Your task to perform on an android device: refresh tabs in the chrome app Image 0: 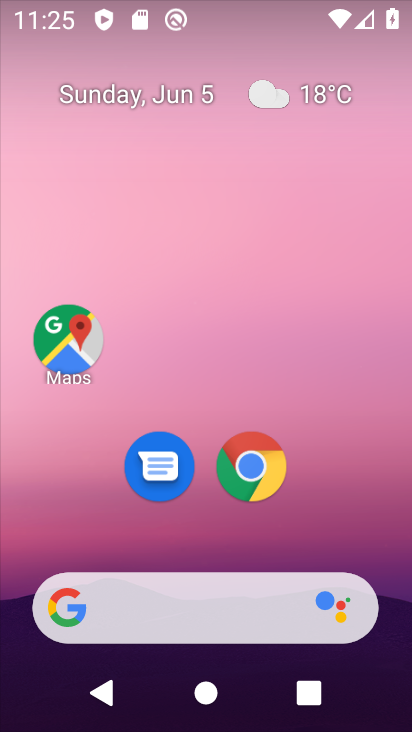
Step 0: press home button
Your task to perform on an android device: refresh tabs in the chrome app Image 1: 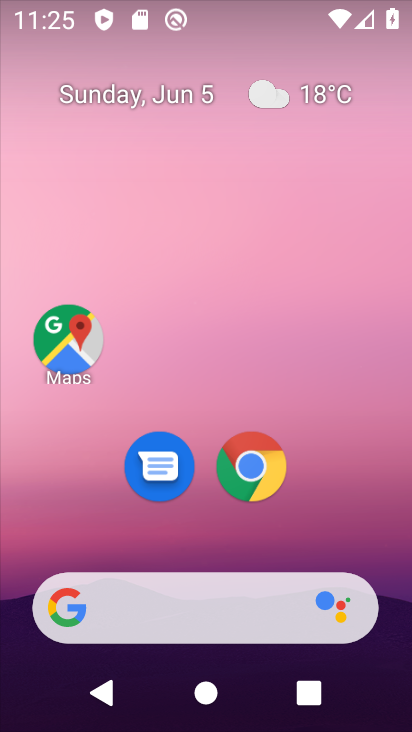
Step 1: click (358, 119)
Your task to perform on an android device: refresh tabs in the chrome app Image 2: 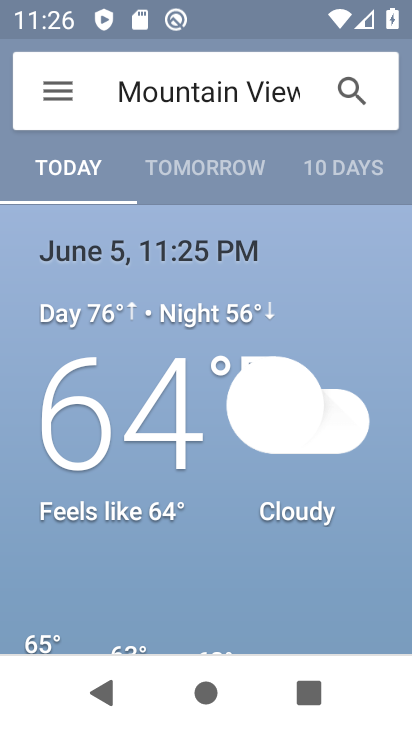
Step 2: press home button
Your task to perform on an android device: refresh tabs in the chrome app Image 3: 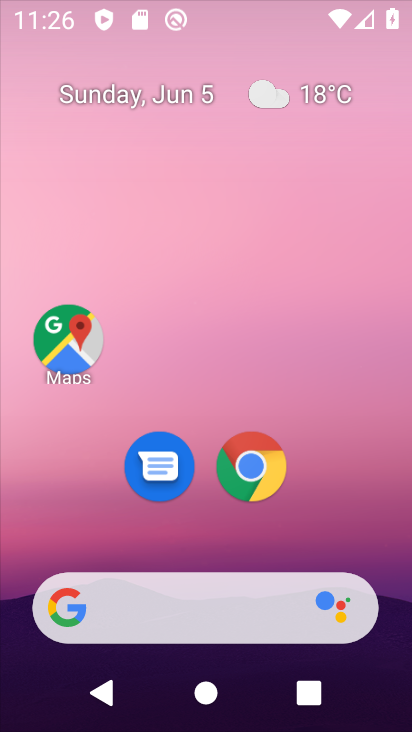
Step 3: drag from (351, 462) to (346, 162)
Your task to perform on an android device: refresh tabs in the chrome app Image 4: 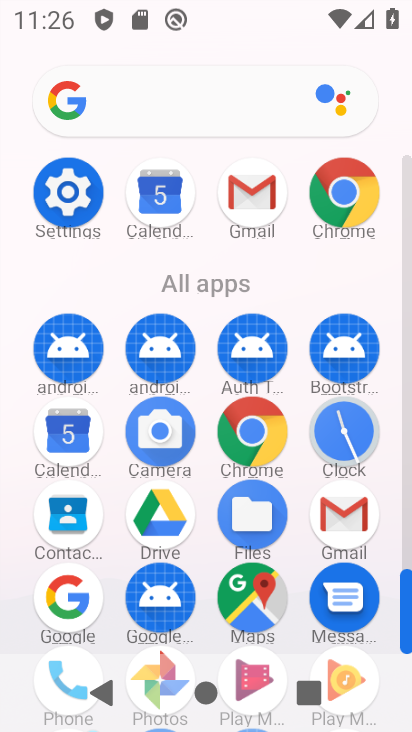
Step 4: click (345, 201)
Your task to perform on an android device: refresh tabs in the chrome app Image 5: 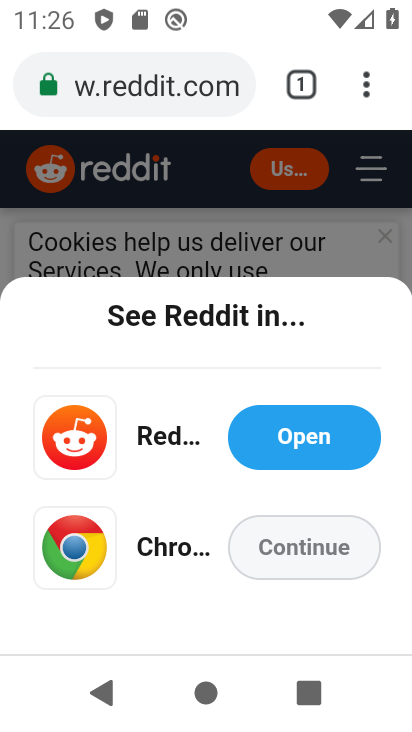
Step 5: task complete